Your task to perform on an android device: turn on the 12-hour format for clock Image 0: 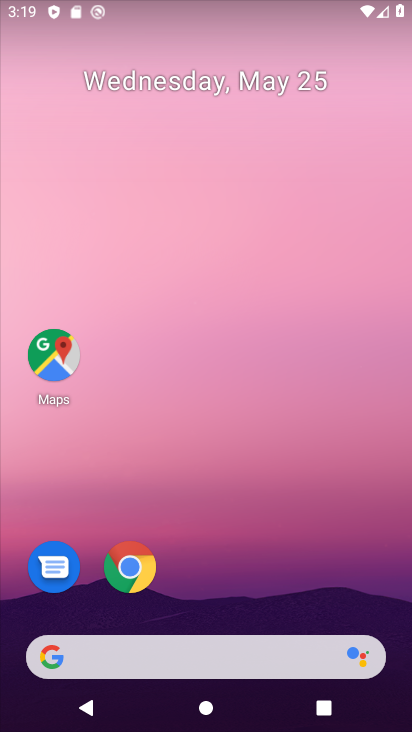
Step 0: drag from (267, 589) to (311, 79)
Your task to perform on an android device: turn on the 12-hour format for clock Image 1: 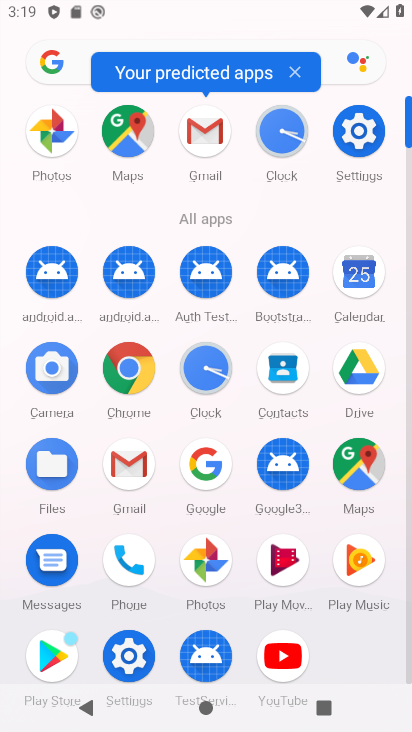
Step 1: click (354, 126)
Your task to perform on an android device: turn on the 12-hour format for clock Image 2: 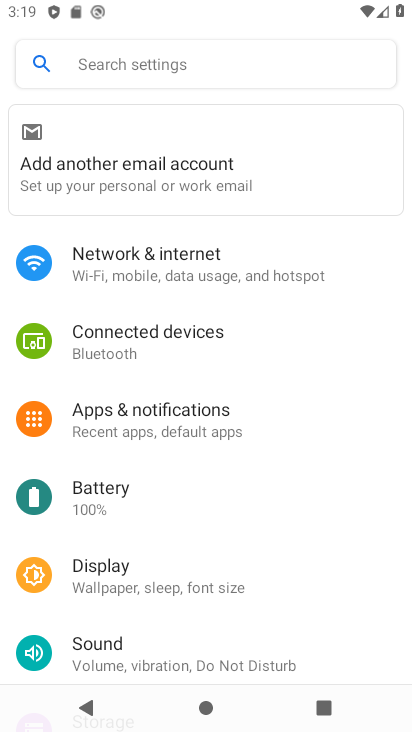
Step 2: drag from (306, 628) to (299, 221)
Your task to perform on an android device: turn on the 12-hour format for clock Image 3: 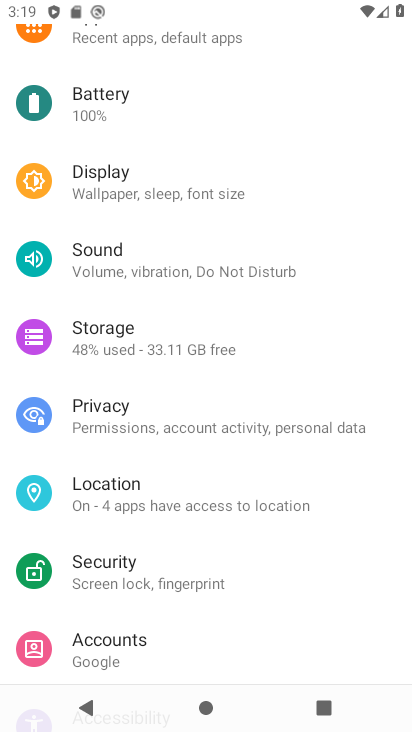
Step 3: press home button
Your task to perform on an android device: turn on the 12-hour format for clock Image 4: 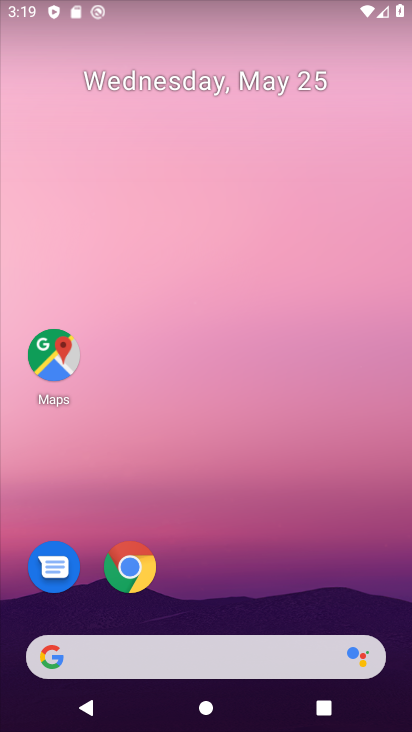
Step 4: drag from (209, 576) to (242, 117)
Your task to perform on an android device: turn on the 12-hour format for clock Image 5: 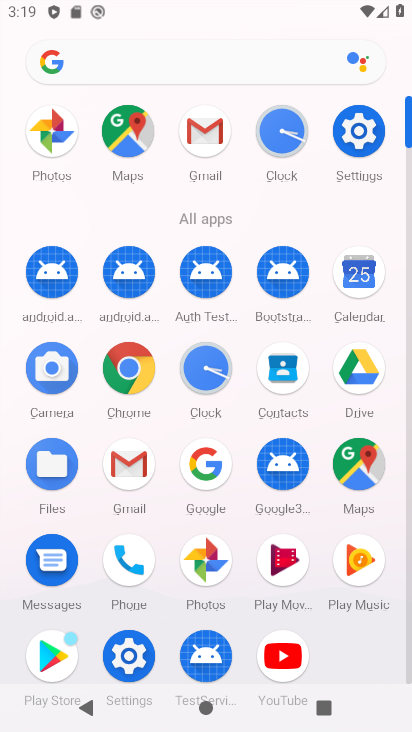
Step 5: click (270, 132)
Your task to perform on an android device: turn on the 12-hour format for clock Image 6: 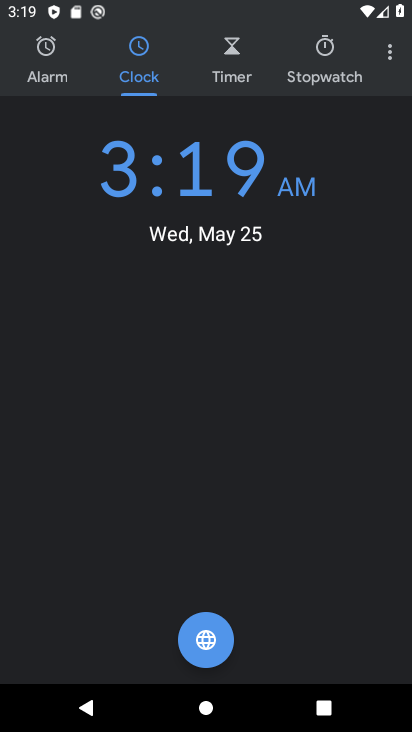
Step 6: click (385, 51)
Your task to perform on an android device: turn on the 12-hour format for clock Image 7: 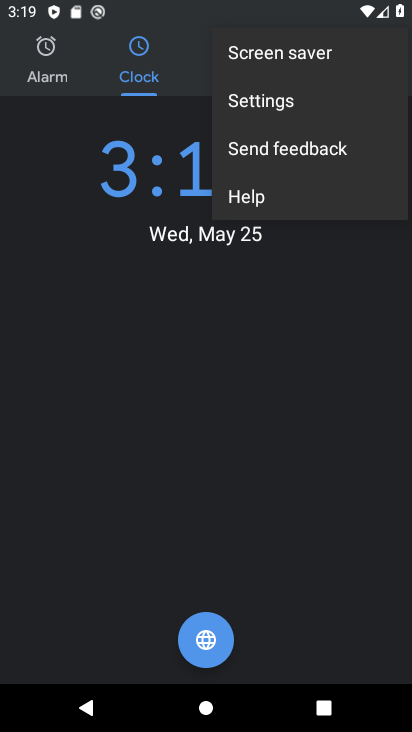
Step 7: click (281, 104)
Your task to perform on an android device: turn on the 12-hour format for clock Image 8: 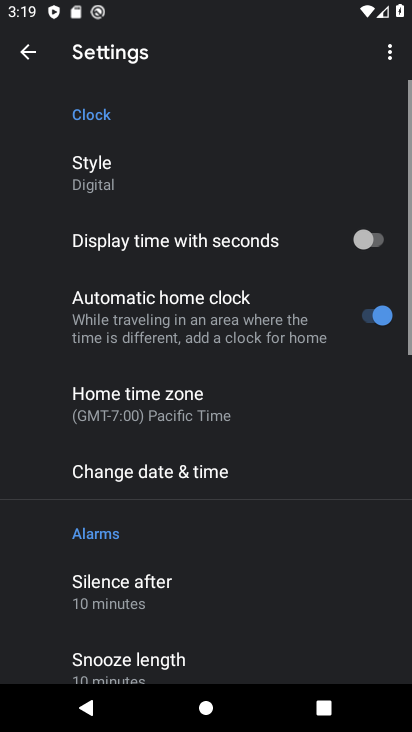
Step 8: click (185, 470)
Your task to perform on an android device: turn on the 12-hour format for clock Image 9: 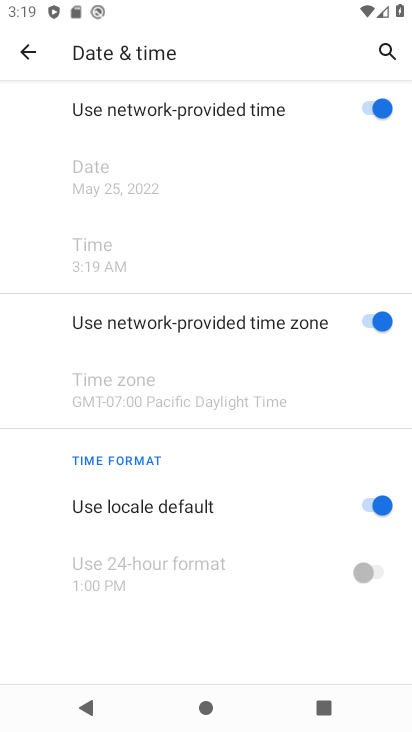
Step 9: task complete